Your task to perform on an android device: Is it going to rain this weekend? Image 0: 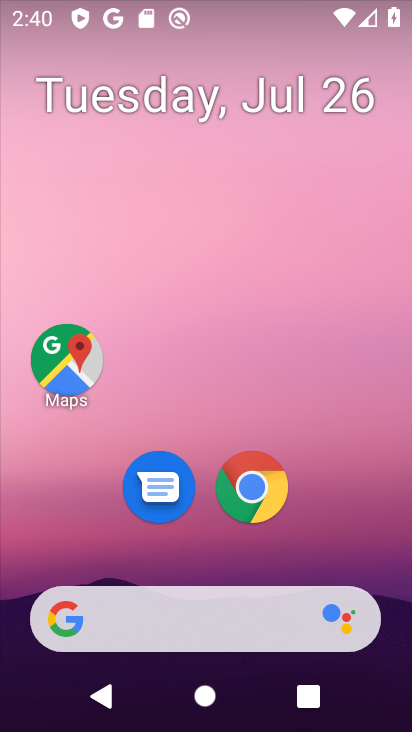
Step 0: click (184, 619)
Your task to perform on an android device: Is it going to rain this weekend? Image 1: 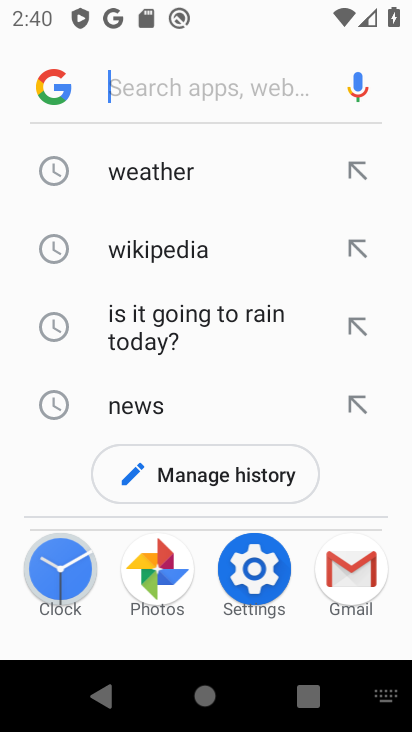
Step 1: click (166, 162)
Your task to perform on an android device: Is it going to rain this weekend? Image 2: 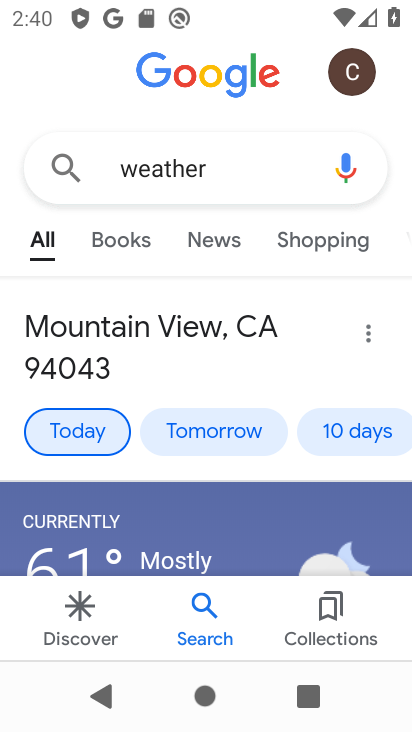
Step 2: click (334, 419)
Your task to perform on an android device: Is it going to rain this weekend? Image 3: 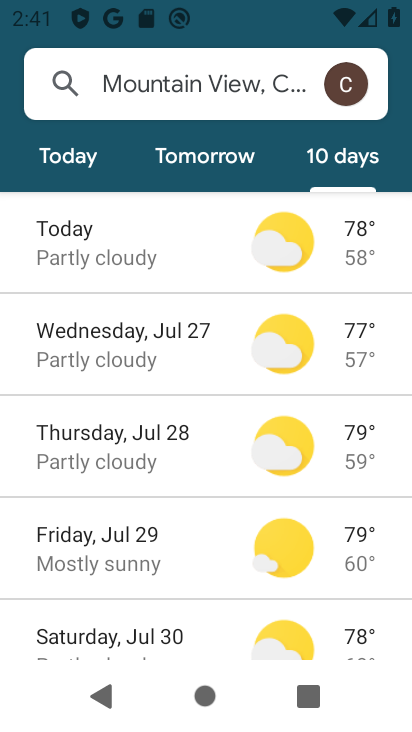
Step 3: task complete